Your task to perform on an android device: Open maps Image 0: 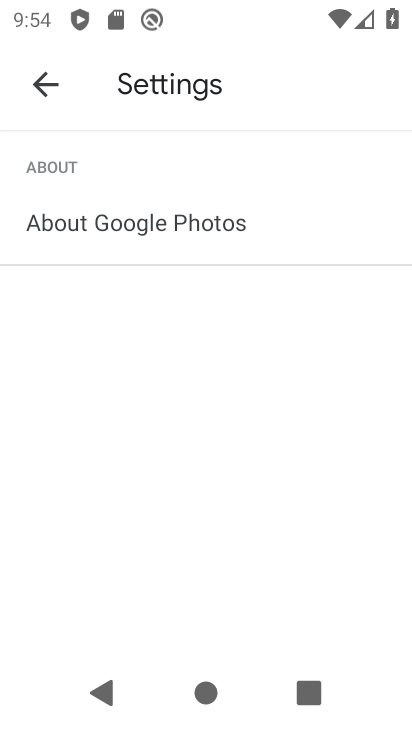
Step 0: press home button
Your task to perform on an android device: Open maps Image 1: 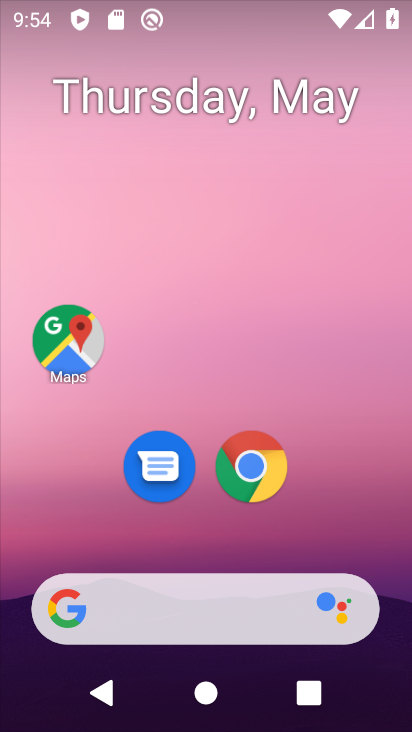
Step 1: click (59, 330)
Your task to perform on an android device: Open maps Image 2: 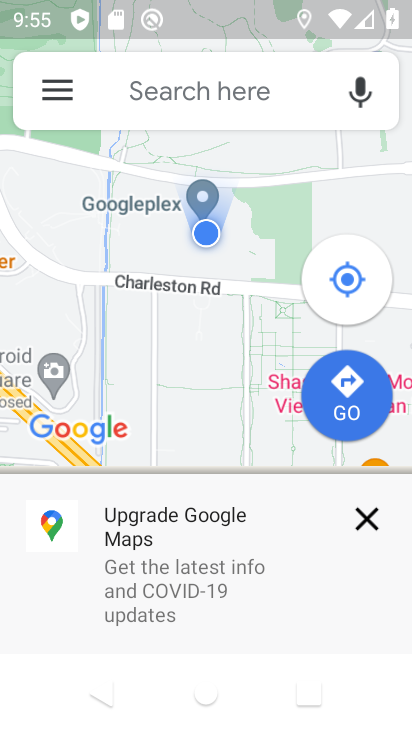
Step 2: task complete